Your task to perform on an android device: Go to internet settings Image 0: 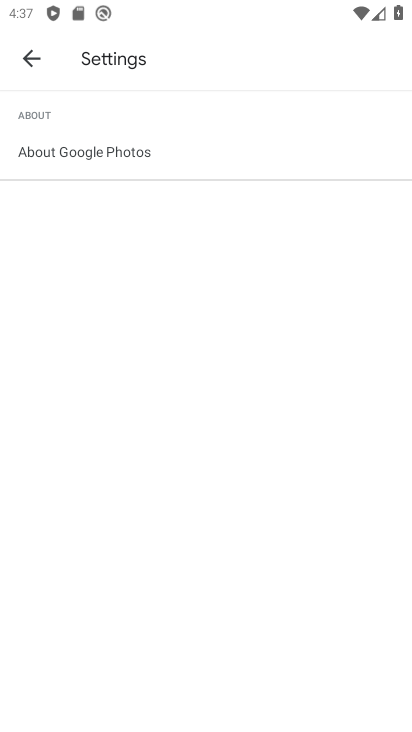
Step 0: press home button
Your task to perform on an android device: Go to internet settings Image 1: 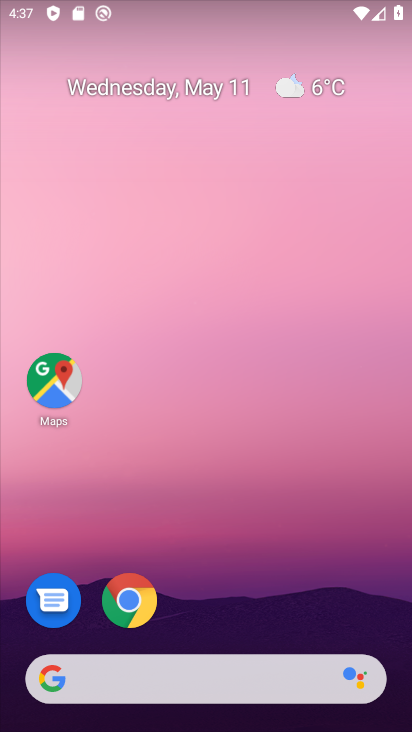
Step 1: drag from (266, 556) to (332, 10)
Your task to perform on an android device: Go to internet settings Image 2: 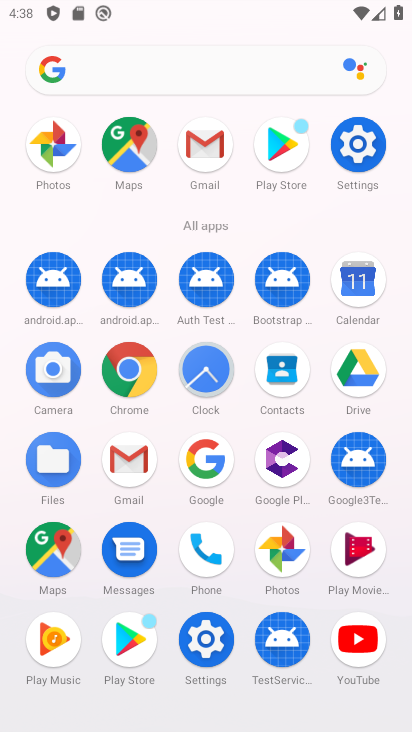
Step 2: click (348, 144)
Your task to perform on an android device: Go to internet settings Image 3: 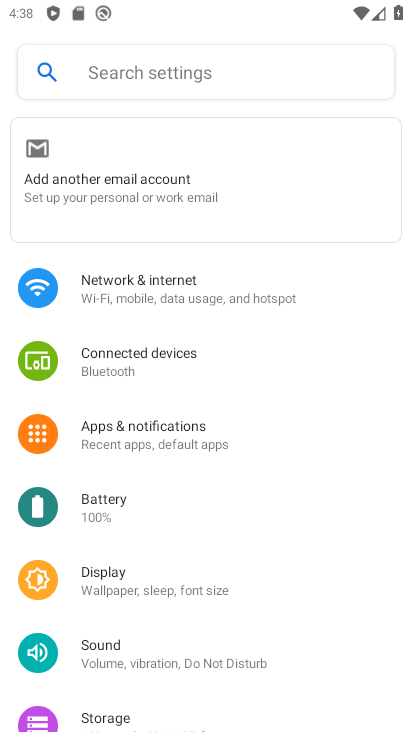
Step 3: click (165, 273)
Your task to perform on an android device: Go to internet settings Image 4: 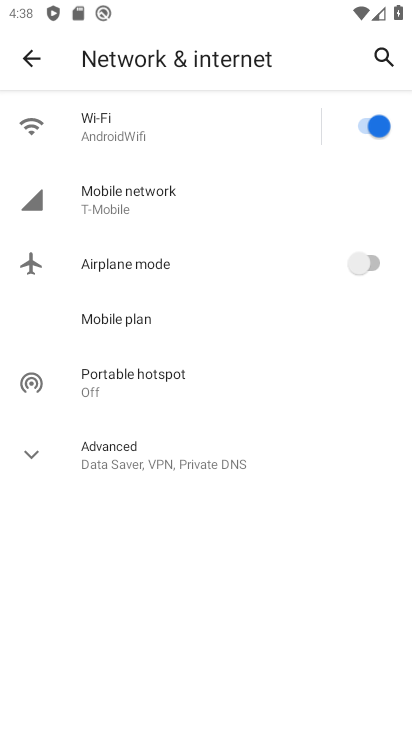
Step 4: task complete